Your task to perform on an android device: show emergency info Image 0: 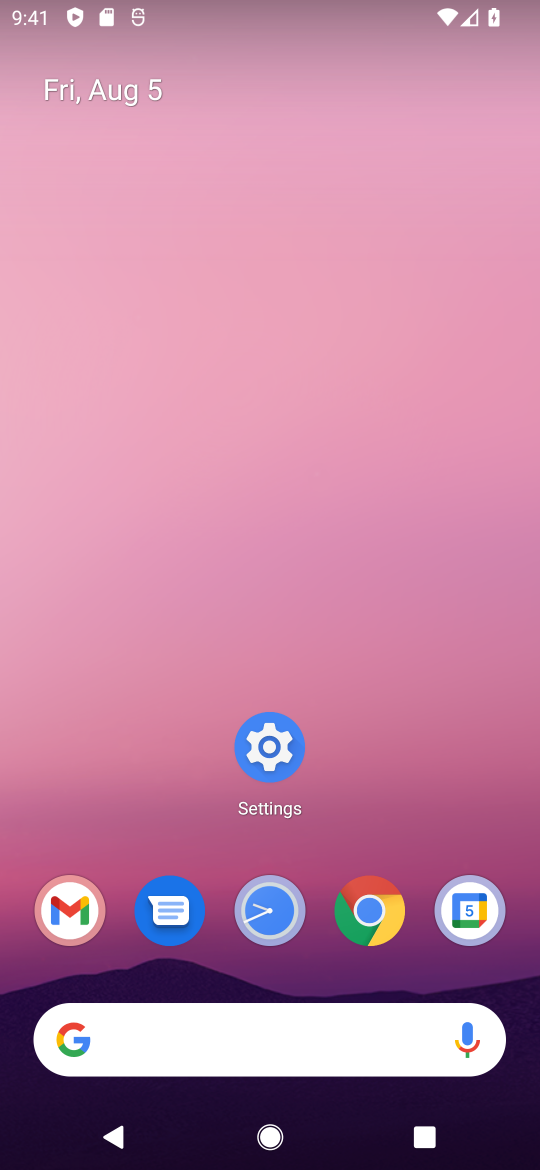
Step 0: click (268, 735)
Your task to perform on an android device: show emergency info Image 1: 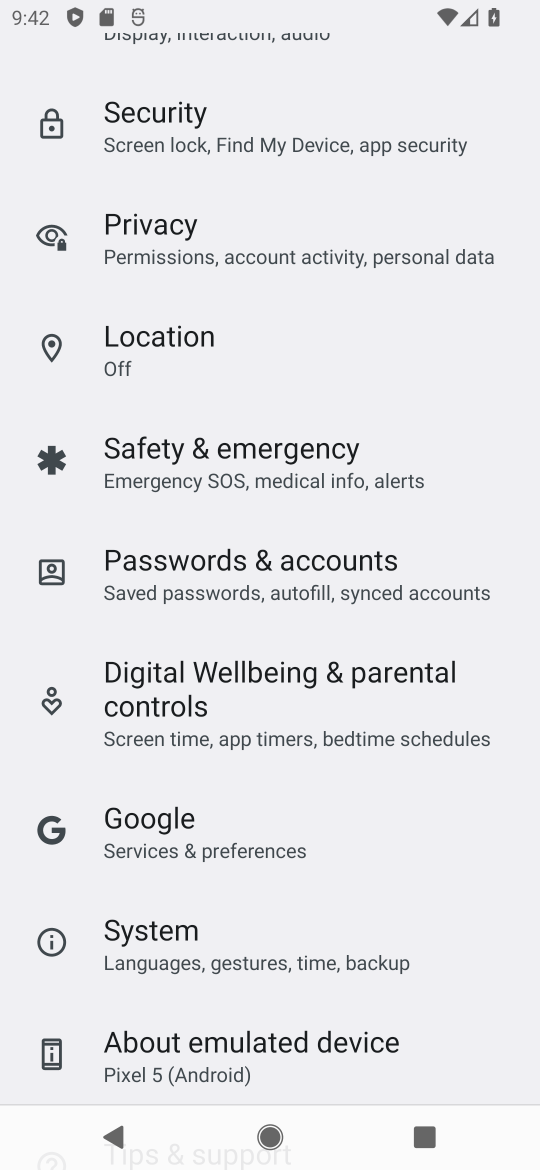
Step 1: drag from (376, 84) to (278, 1017)
Your task to perform on an android device: show emergency info Image 2: 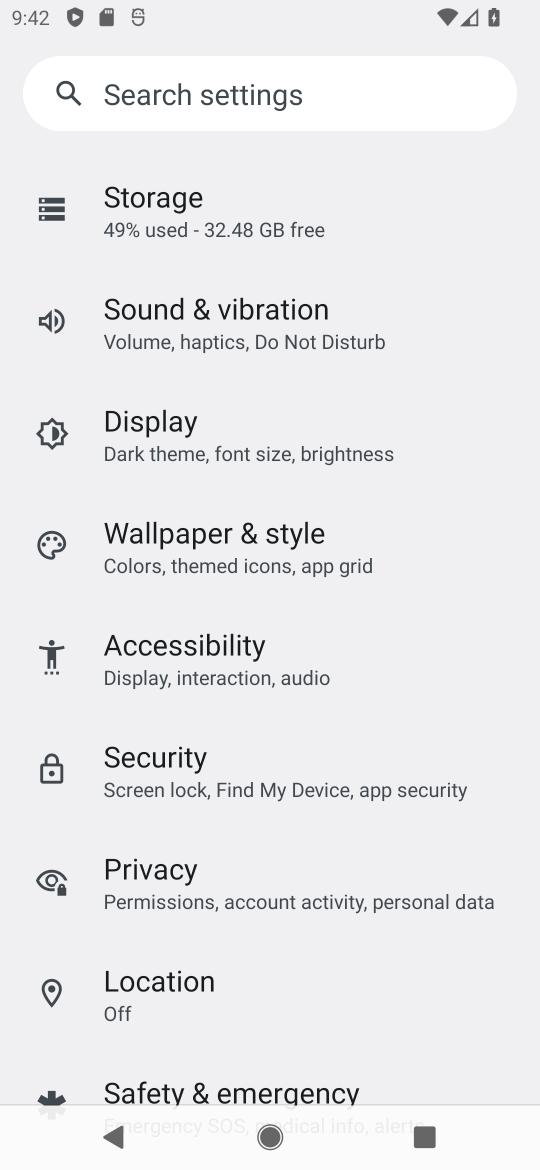
Step 2: drag from (399, 530) to (323, 975)
Your task to perform on an android device: show emergency info Image 3: 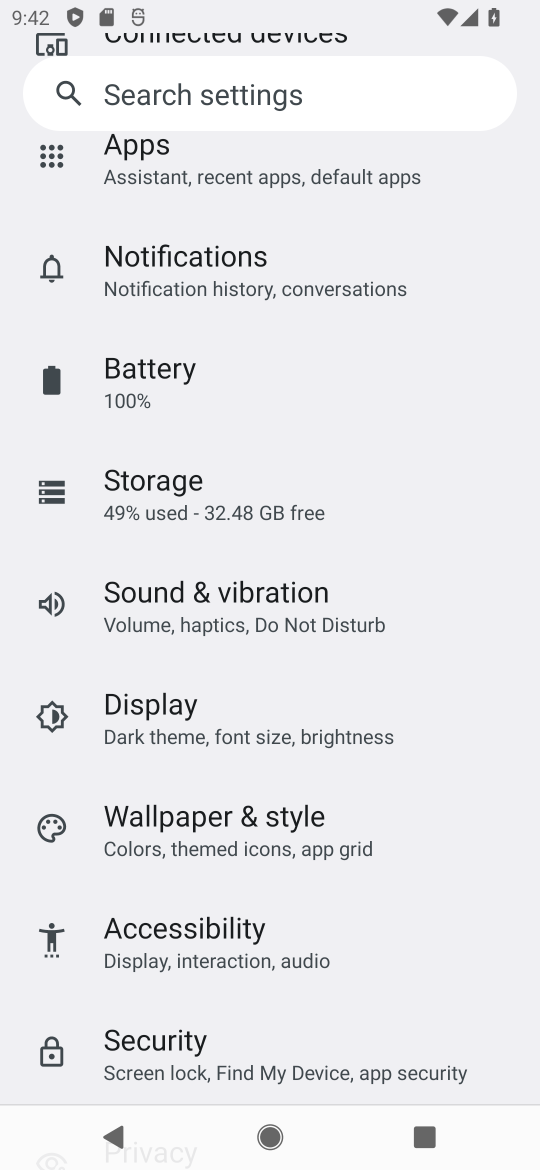
Step 3: drag from (406, 366) to (299, 992)
Your task to perform on an android device: show emergency info Image 4: 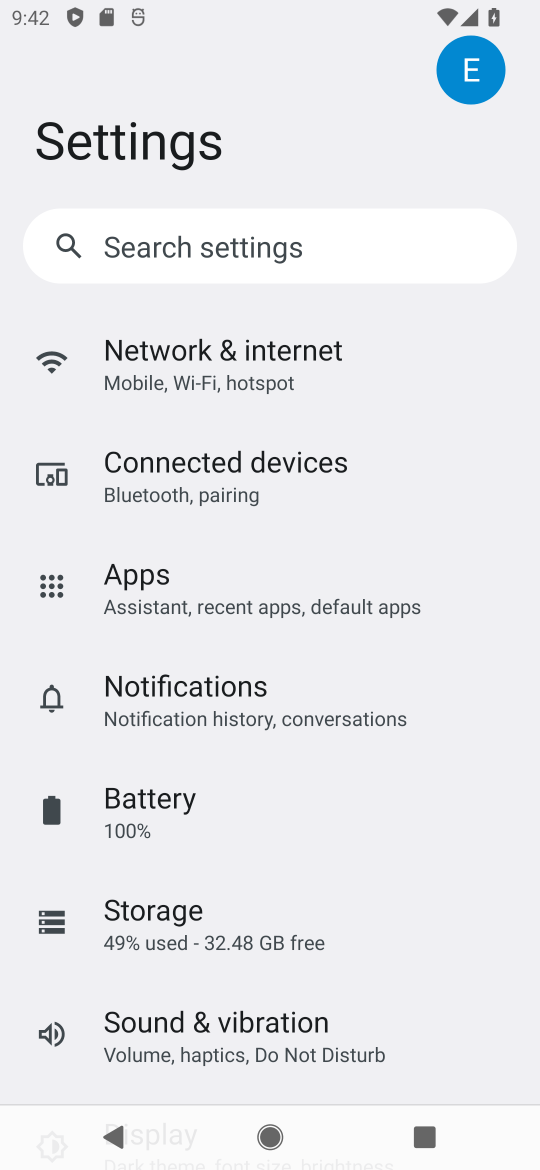
Step 4: drag from (295, 935) to (384, 87)
Your task to perform on an android device: show emergency info Image 5: 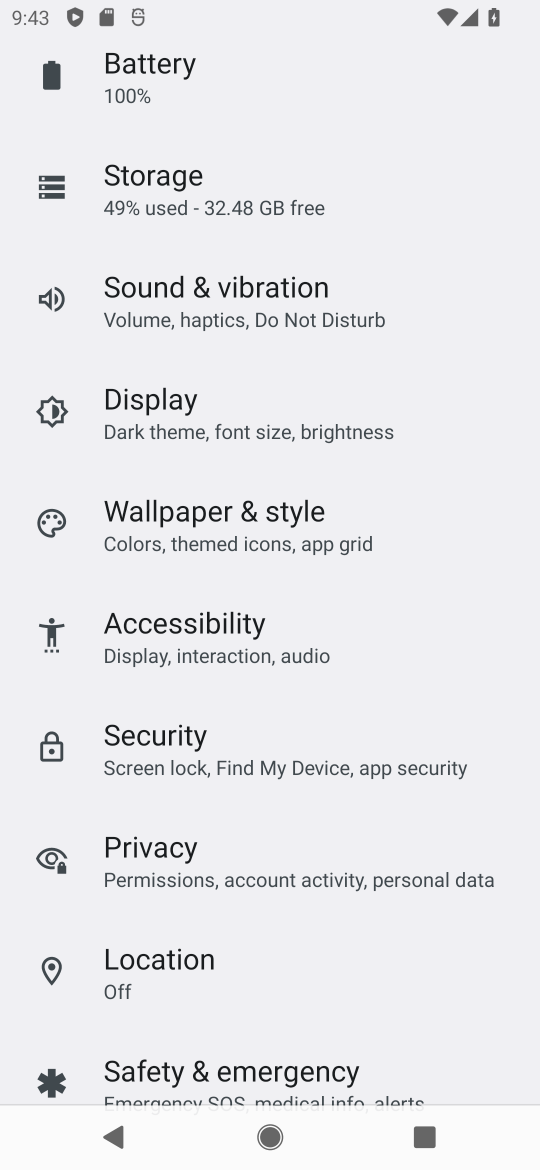
Step 5: drag from (337, 941) to (311, 124)
Your task to perform on an android device: show emergency info Image 6: 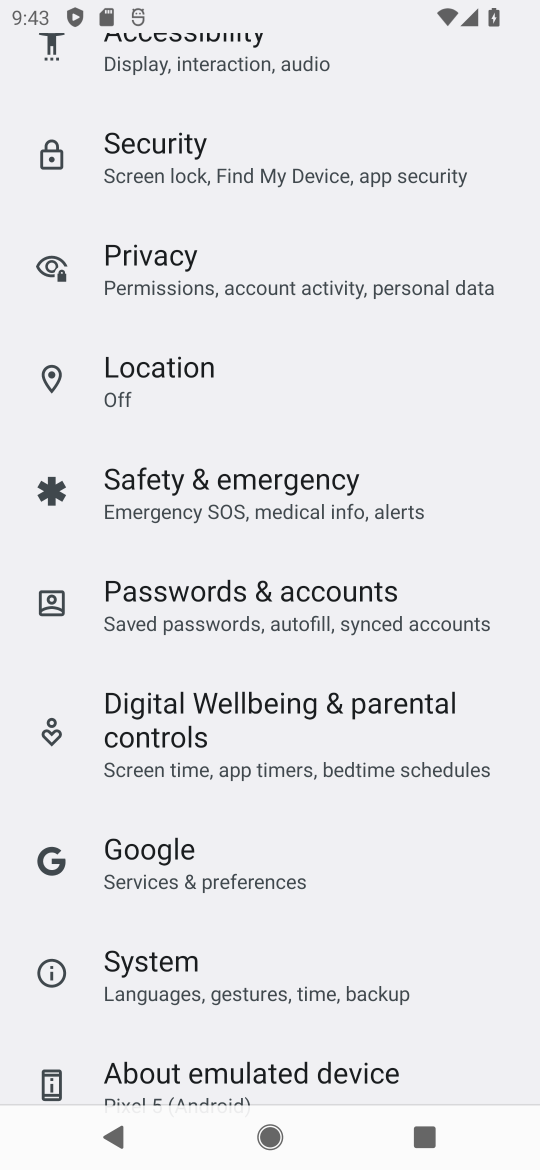
Step 6: click (267, 502)
Your task to perform on an android device: show emergency info Image 7: 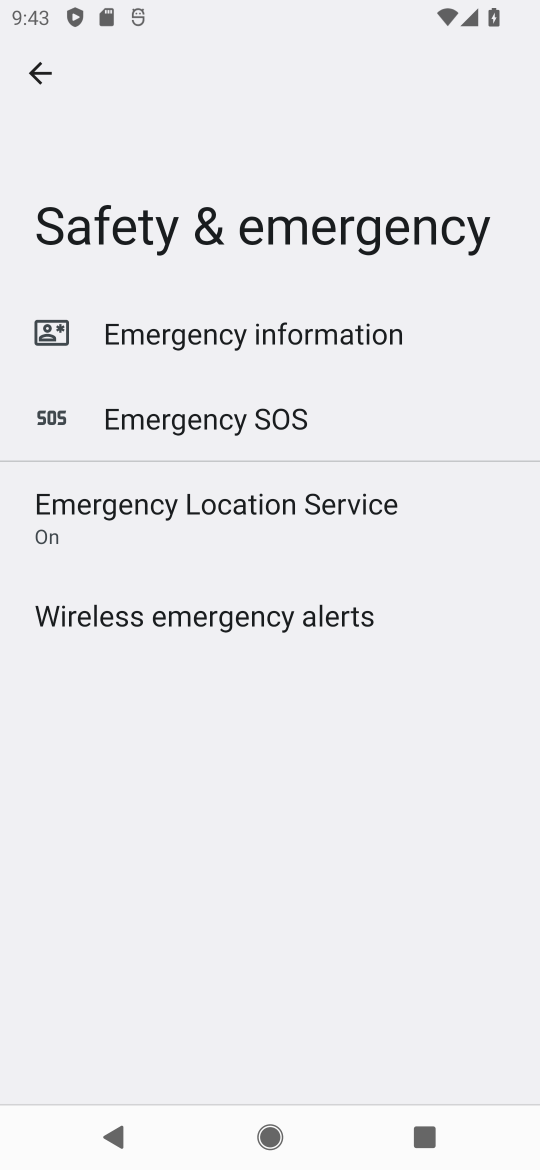
Step 7: click (279, 324)
Your task to perform on an android device: show emergency info Image 8: 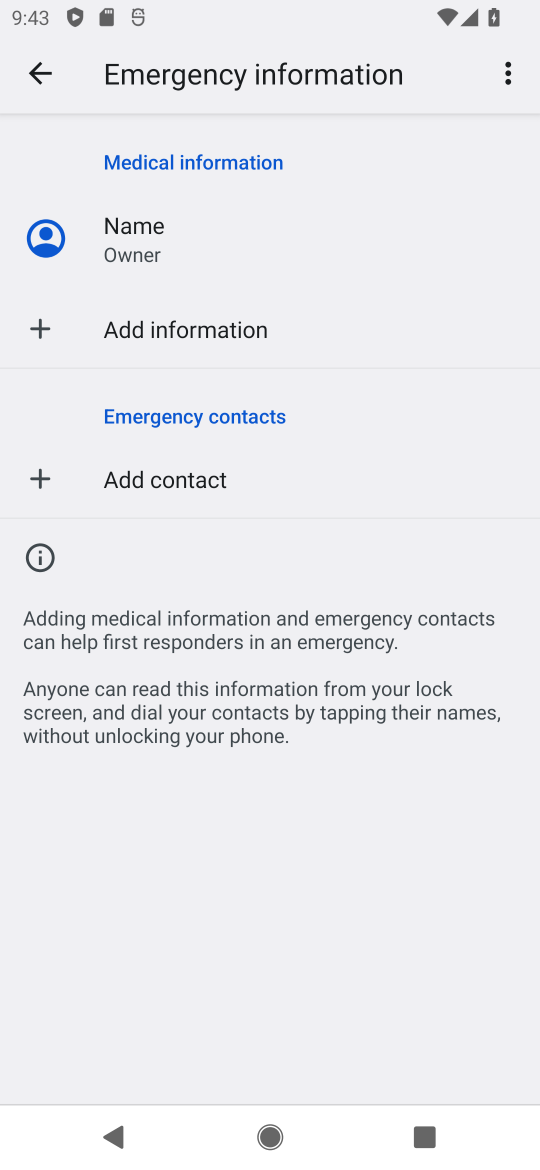
Step 8: task complete